Your task to perform on an android device: What's on Reddit this week Image 0: 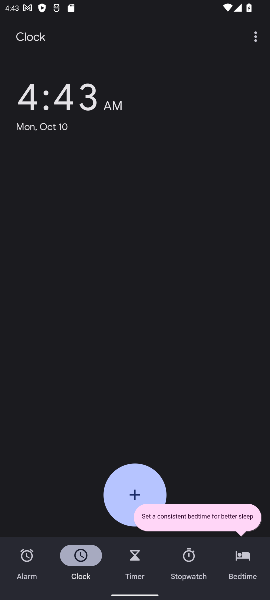
Step 0: press home button
Your task to perform on an android device: What's on Reddit this week Image 1: 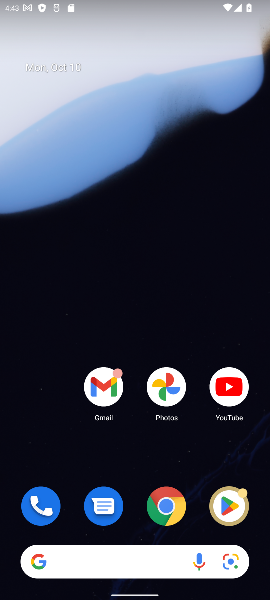
Step 1: drag from (137, 550) to (261, 48)
Your task to perform on an android device: What's on Reddit this week Image 2: 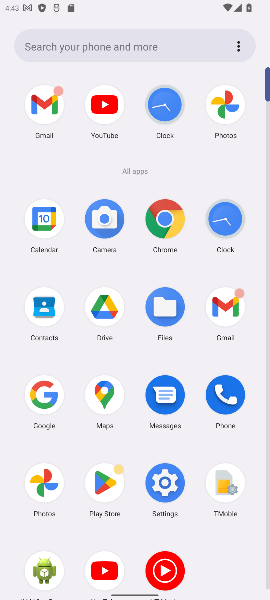
Step 2: click (37, 389)
Your task to perform on an android device: What's on Reddit this week Image 3: 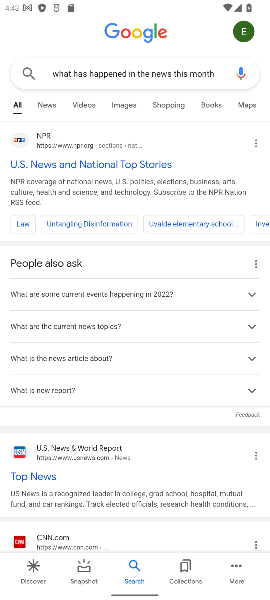
Step 3: click (139, 68)
Your task to perform on an android device: What's on Reddit this week Image 4: 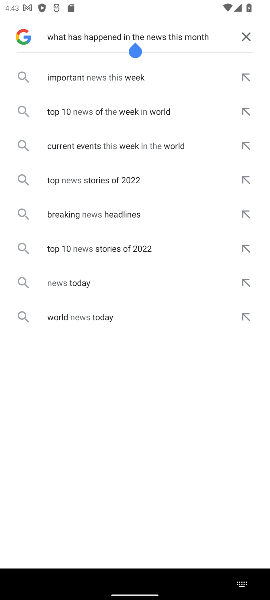
Step 4: click (247, 39)
Your task to perform on an android device: What's on Reddit this week Image 5: 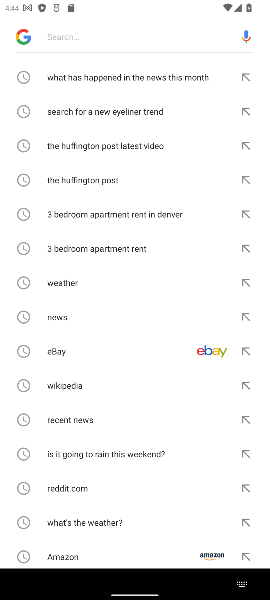
Step 5: type "What's on Reddit this week"
Your task to perform on an android device: What's on Reddit this week Image 6: 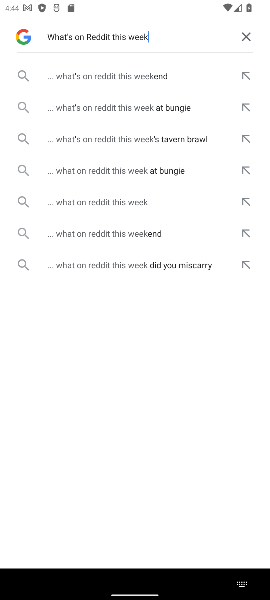
Step 6: click (156, 78)
Your task to perform on an android device: What's on Reddit this week Image 7: 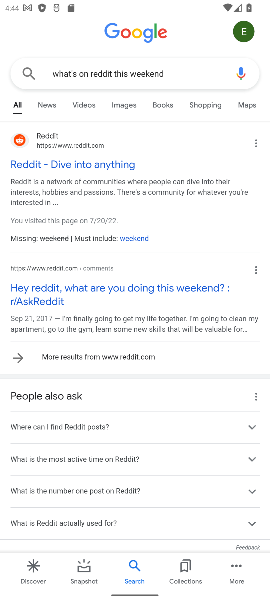
Step 7: click (95, 158)
Your task to perform on an android device: What's on Reddit this week Image 8: 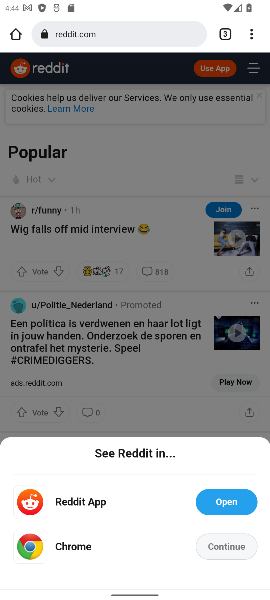
Step 8: task complete